Your task to perform on an android device: open app "Nova Launcher" Image 0: 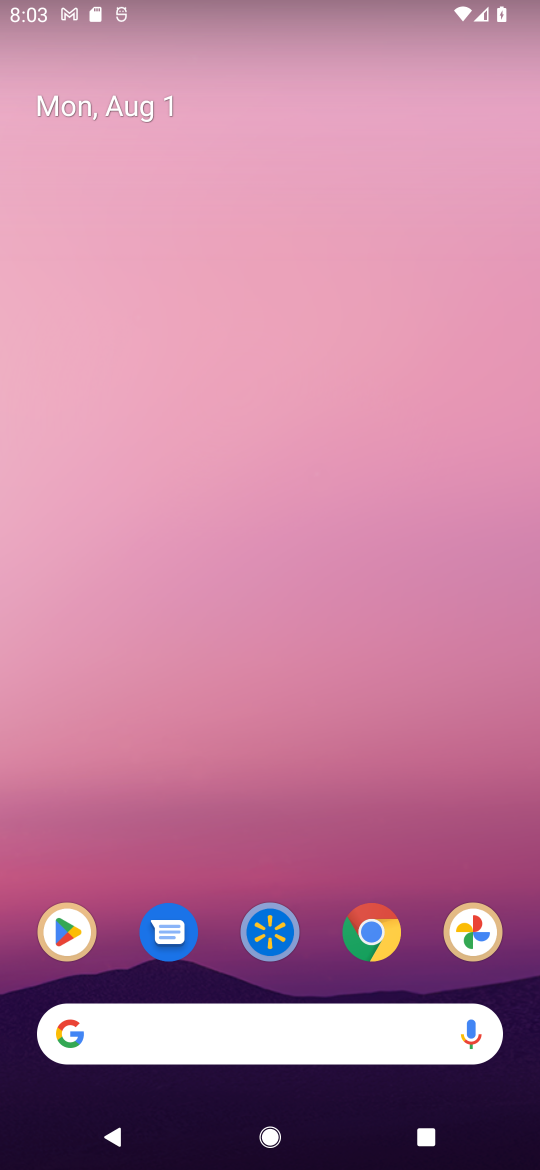
Step 0: click (86, 934)
Your task to perform on an android device: open app "Nova Launcher" Image 1: 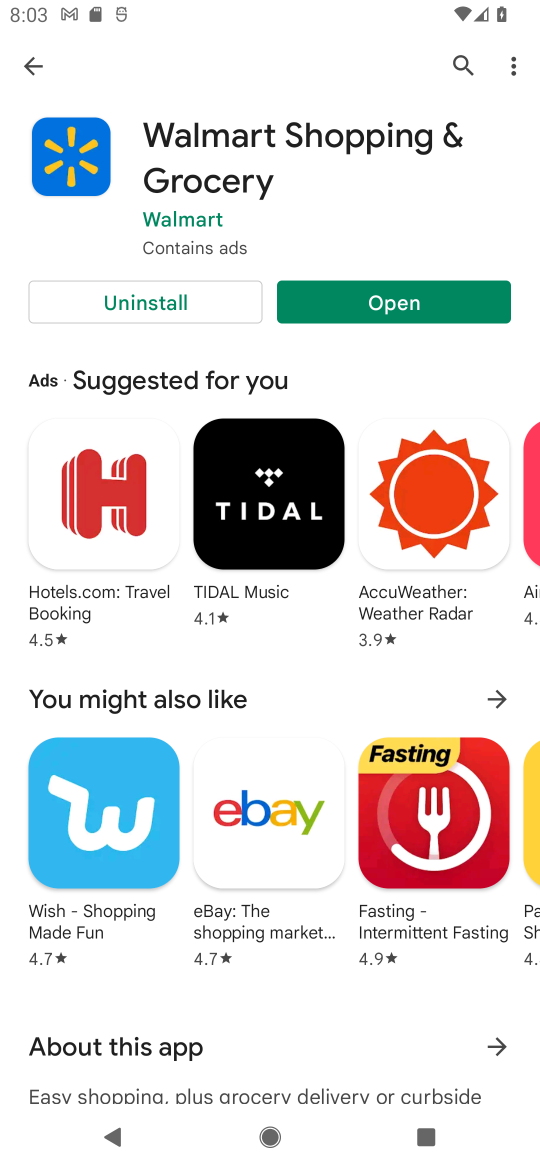
Step 1: click (28, 76)
Your task to perform on an android device: open app "Nova Launcher" Image 2: 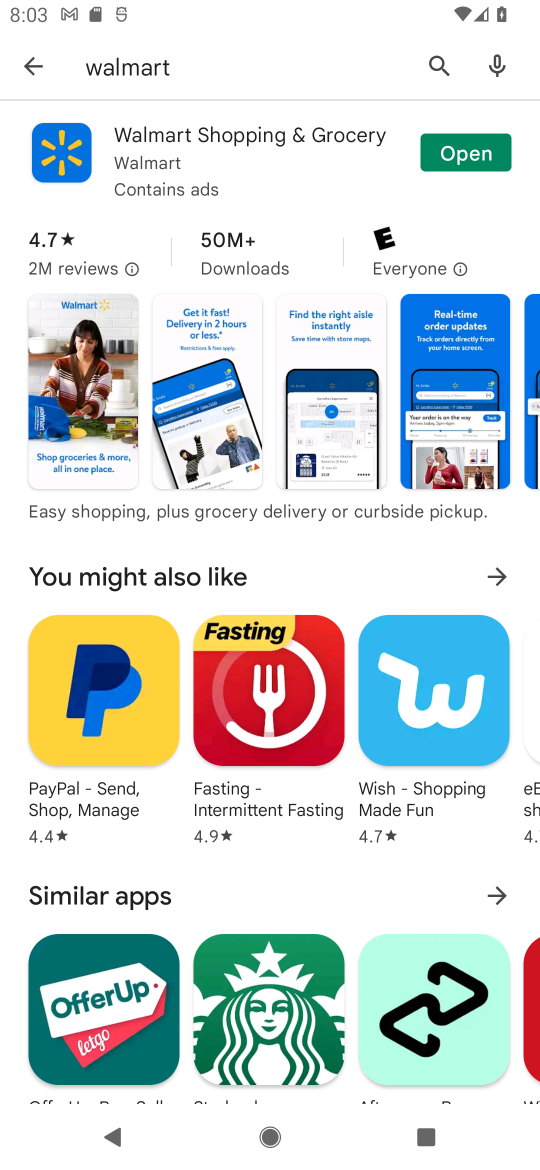
Step 2: click (212, 64)
Your task to perform on an android device: open app "Nova Launcher" Image 3: 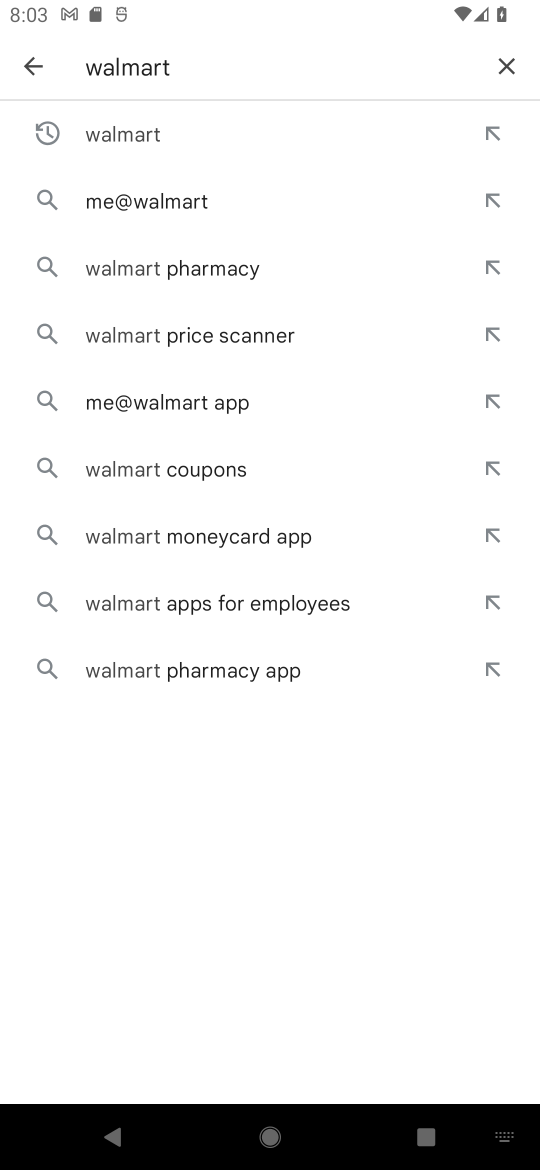
Step 3: click (505, 67)
Your task to perform on an android device: open app "Nova Launcher" Image 4: 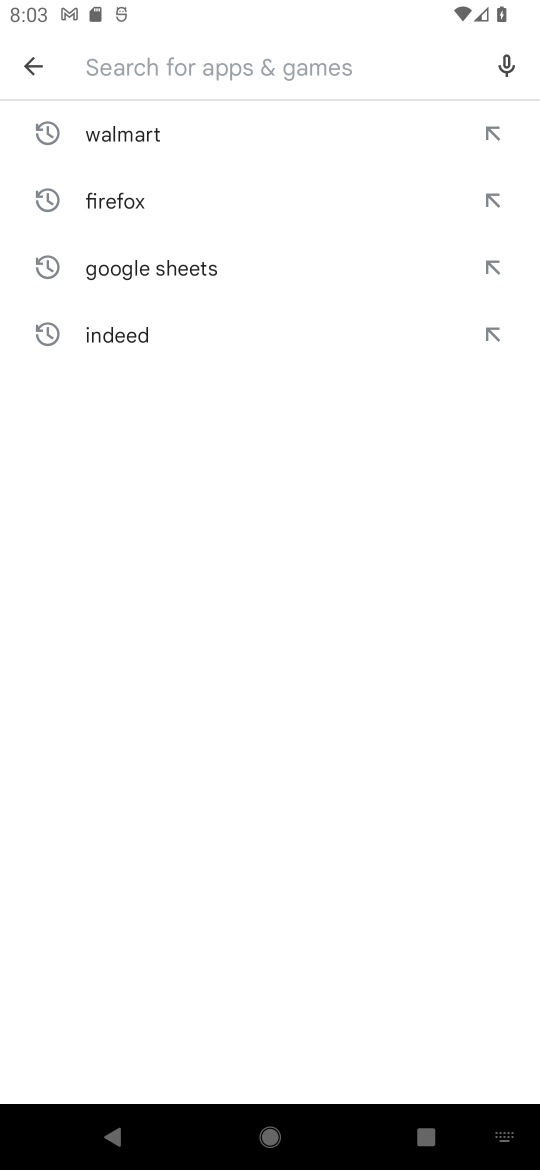
Step 4: type "Nova launcher"
Your task to perform on an android device: open app "Nova Launcher" Image 5: 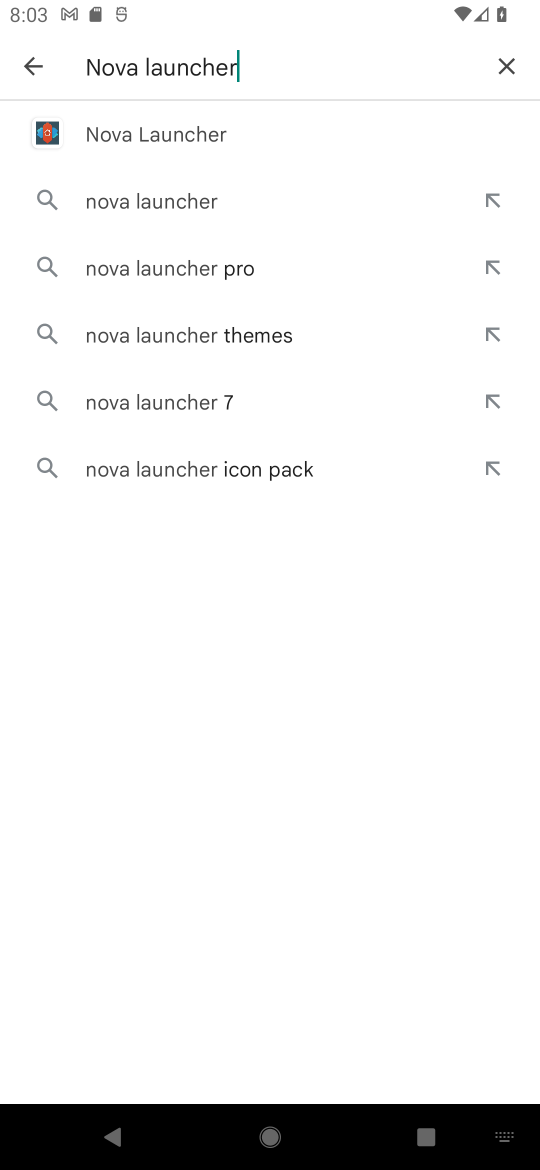
Step 5: click (205, 140)
Your task to perform on an android device: open app "Nova Launcher" Image 6: 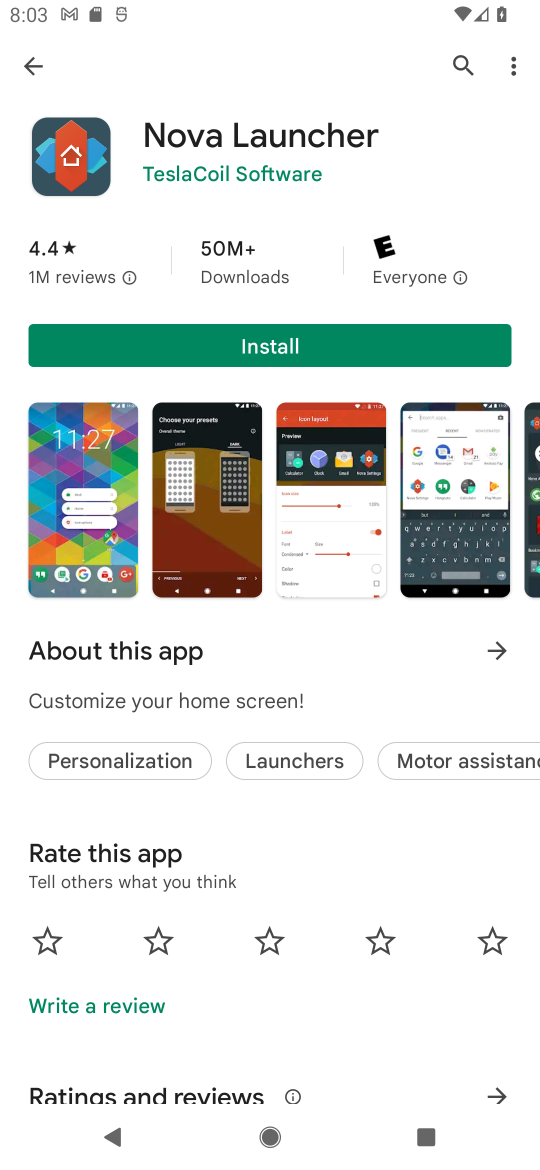
Step 6: task complete